Your task to perform on an android device: Search for flights from NYC to Barcelona Image 0: 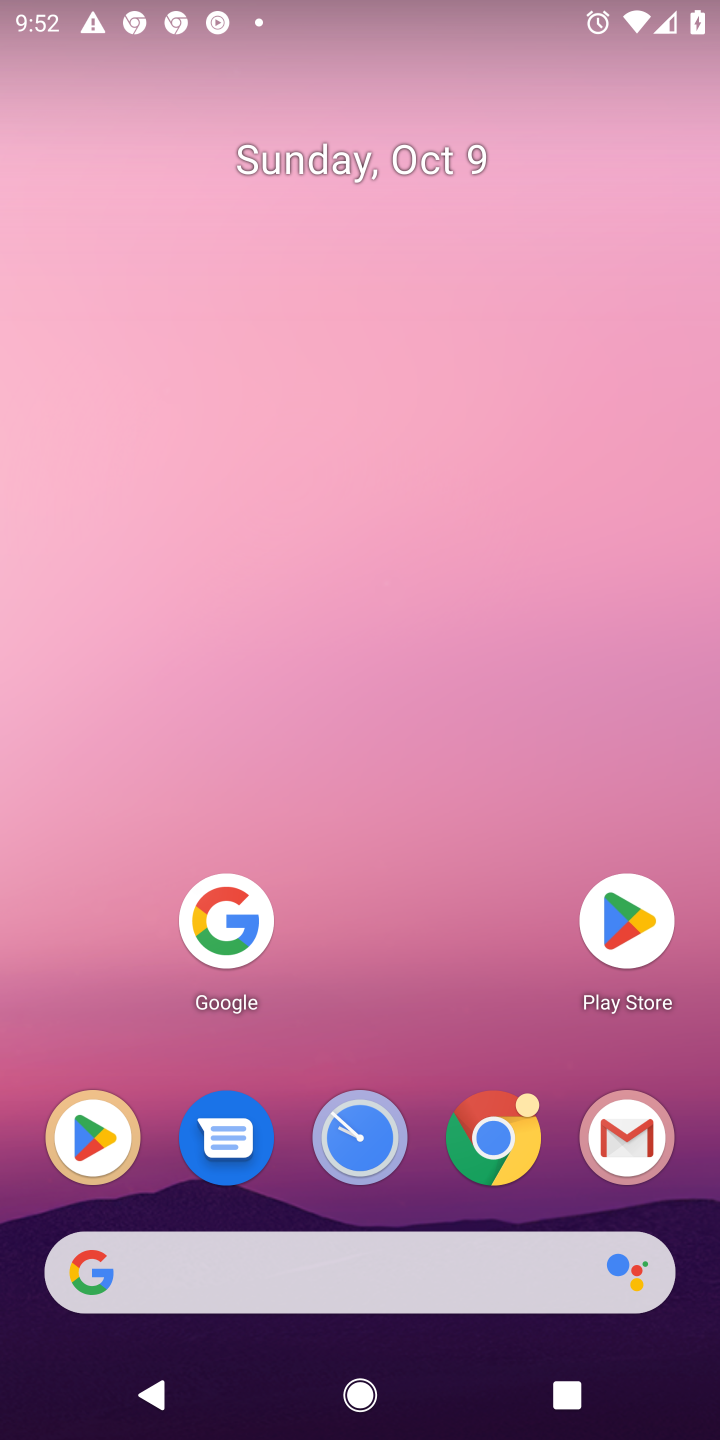
Step 0: click (227, 913)
Your task to perform on an android device: Search for flights from NYC to Barcelona Image 1: 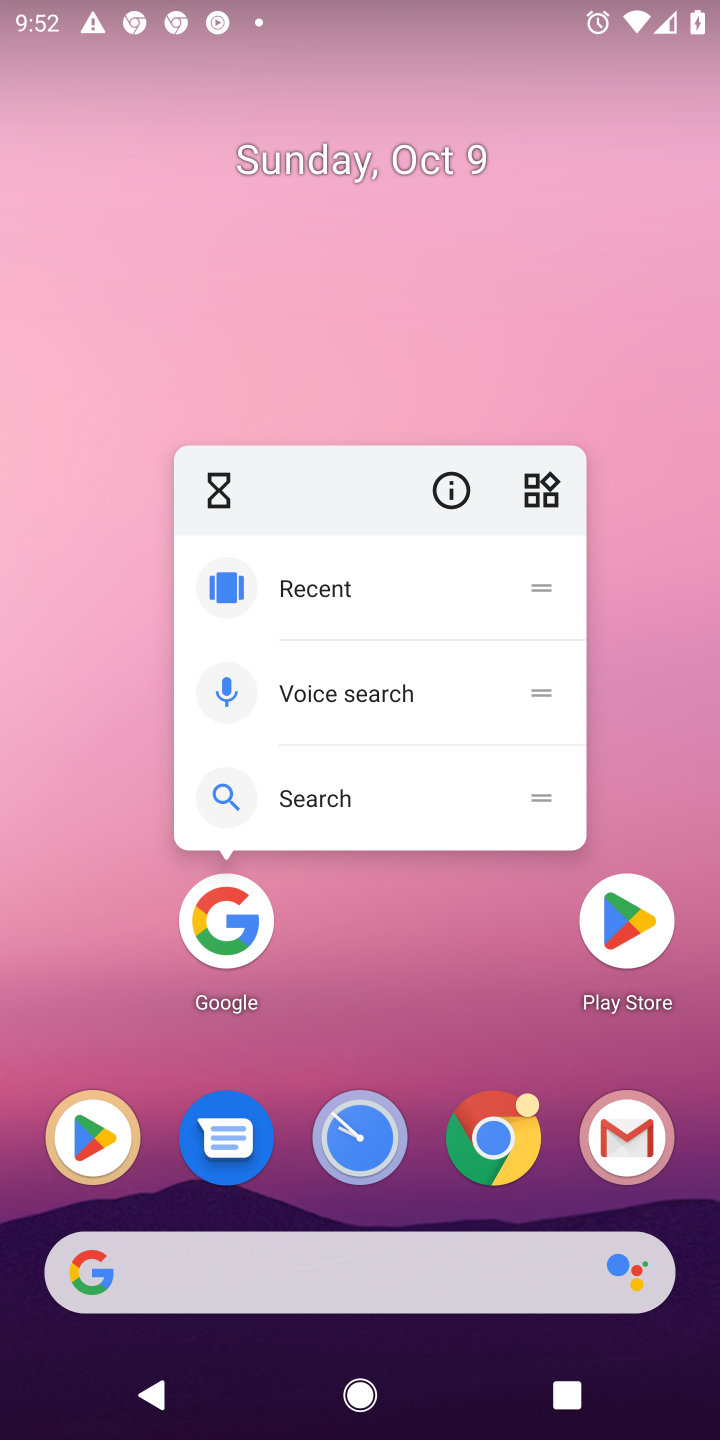
Step 1: click (229, 910)
Your task to perform on an android device: Search for flights from NYC to Barcelona Image 2: 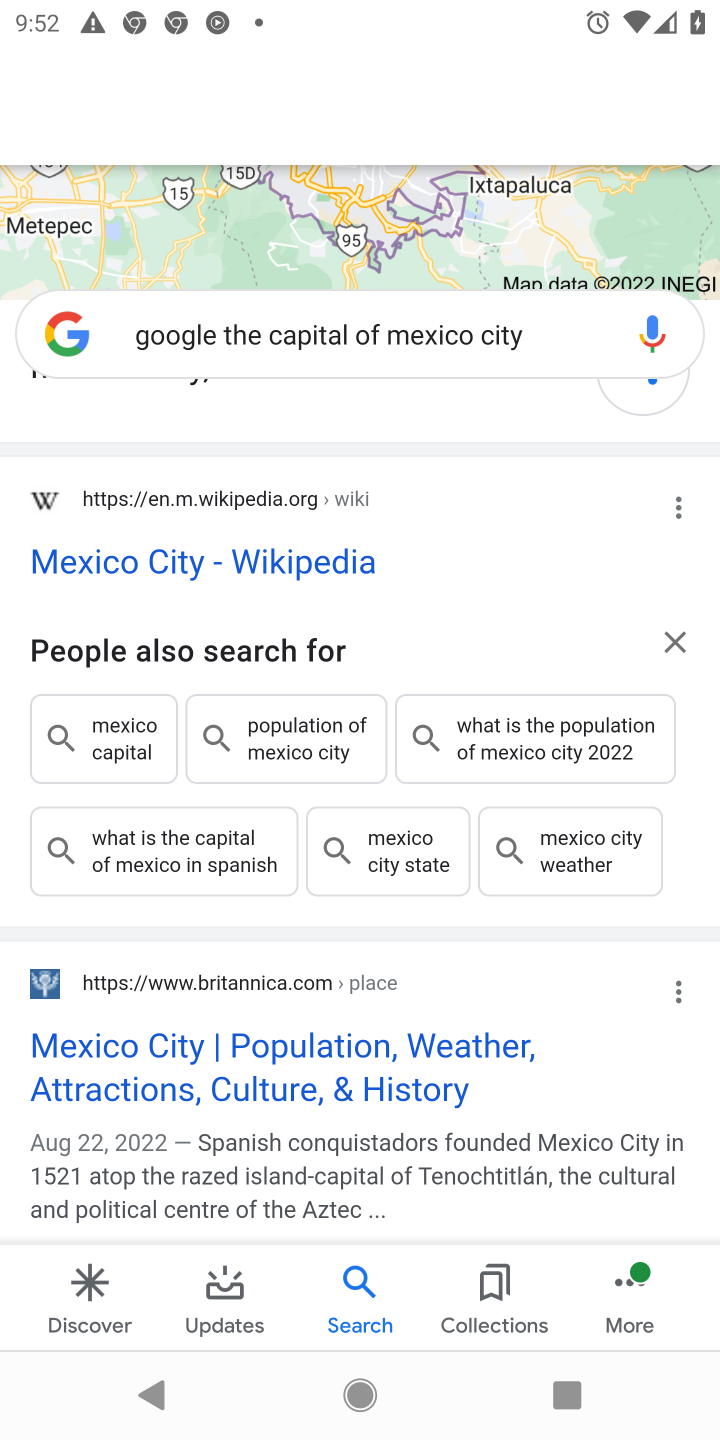
Step 2: click (543, 325)
Your task to perform on an android device: Search for flights from NYC to Barcelona Image 3: 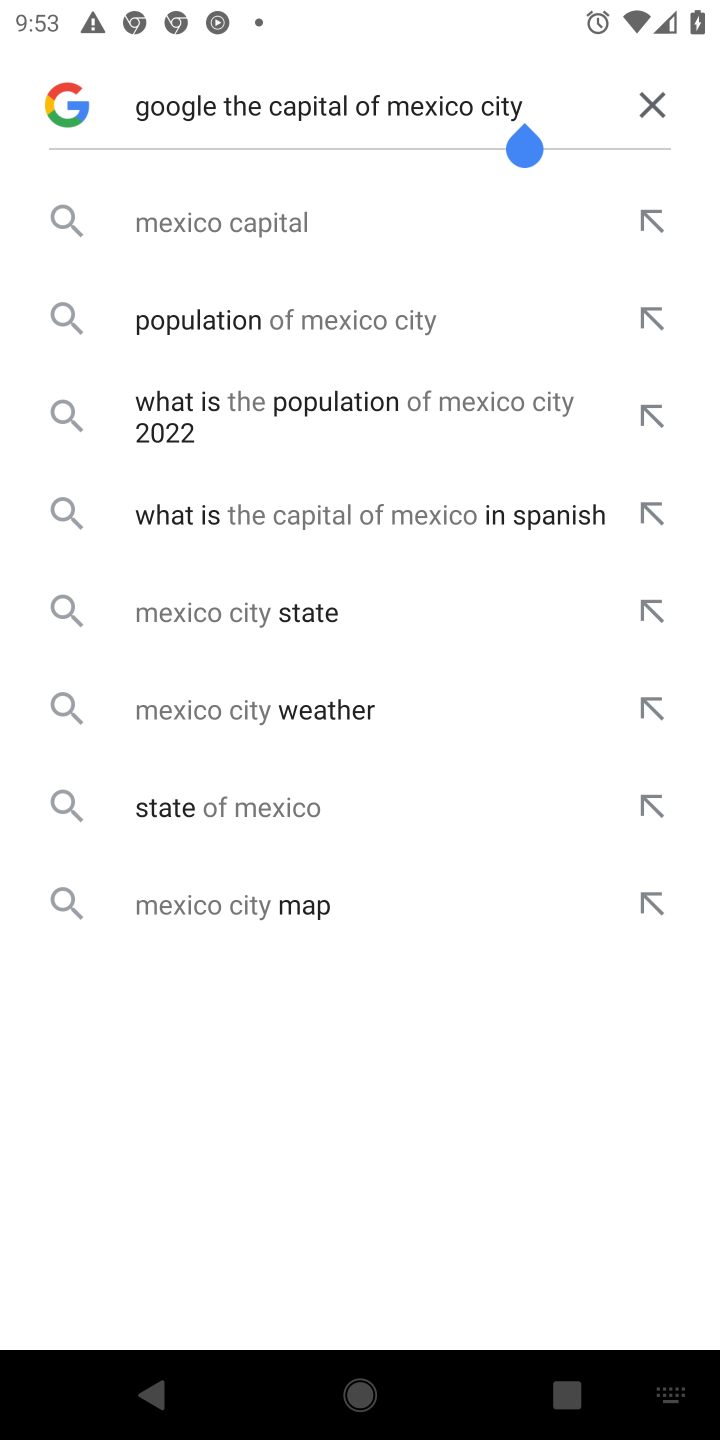
Step 3: click (644, 110)
Your task to perform on an android device: Search for flights from NYC to Barcelona Image 4: 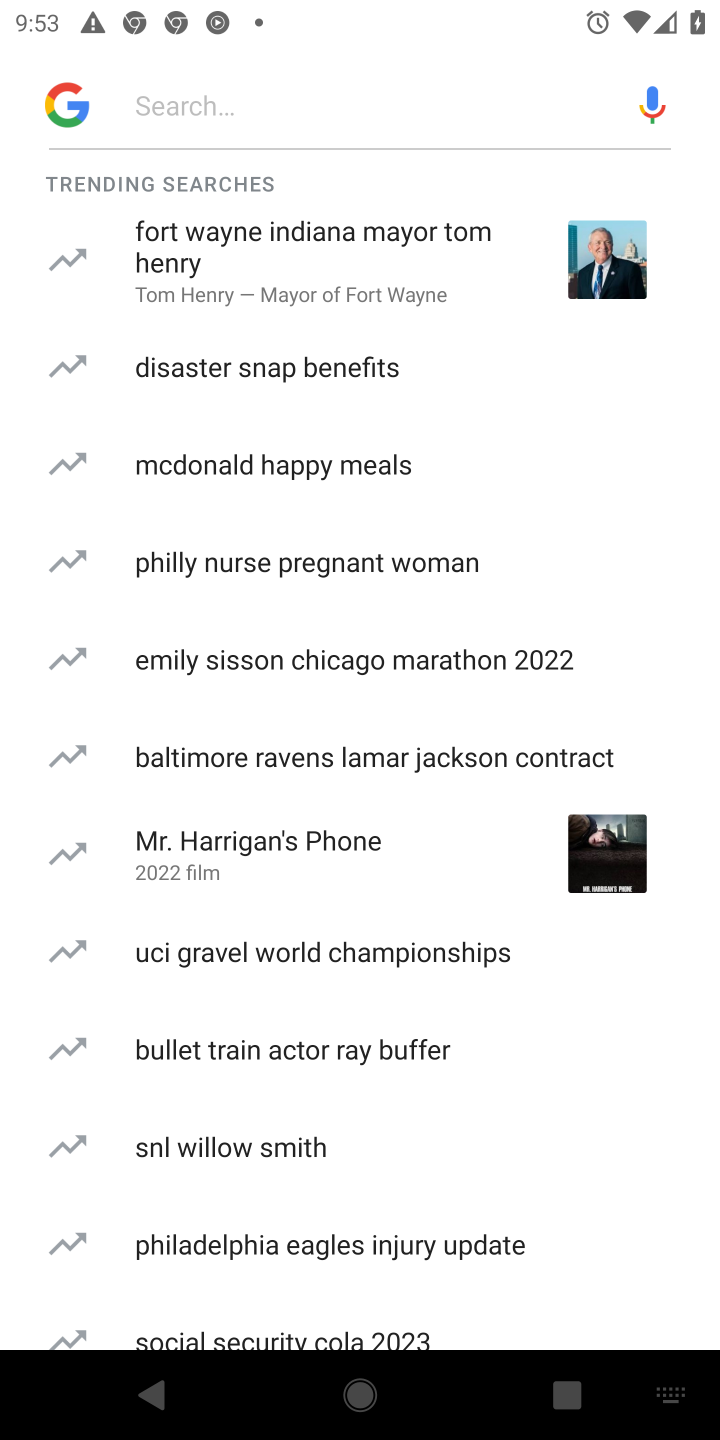
Step 4: click (265, 115)
Your task to perform on an android device: Search for flights from NYC to Barcelona Image 5: 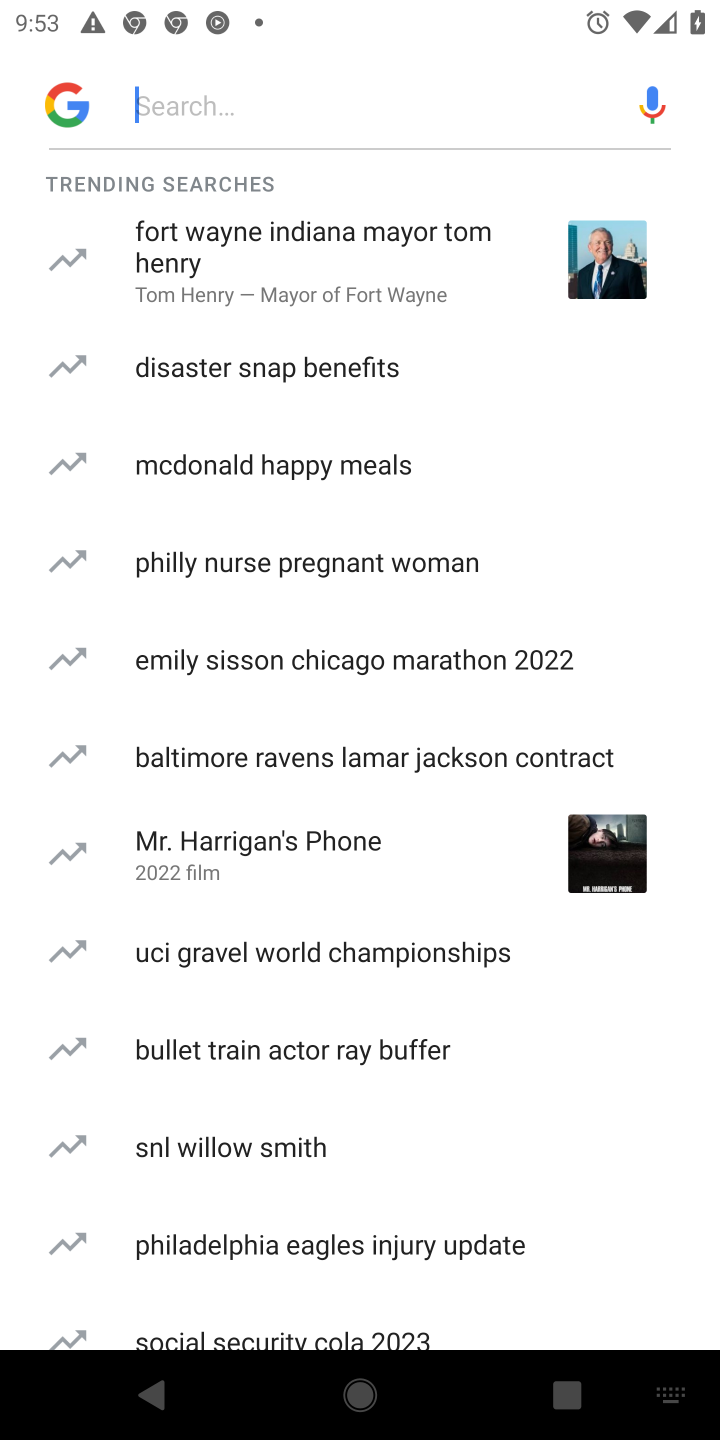
Step 5: type "flights from NYC to Barcelona "
Your task to perform on an android device: Search for flights from NYC to Barcelona Image 6: 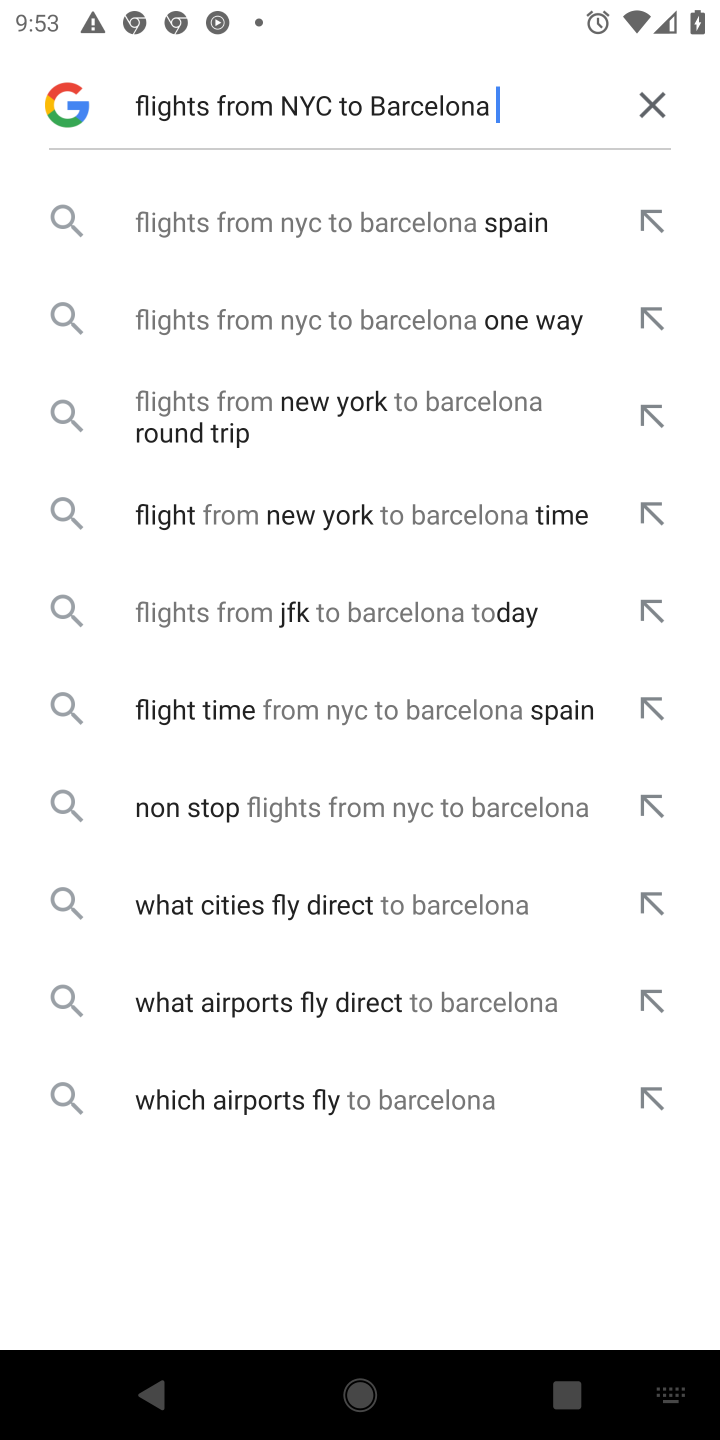
Step 6: click (266, 243)
Your task to perform on an android device: Search for flights from NYC to Barcelona Image 7: 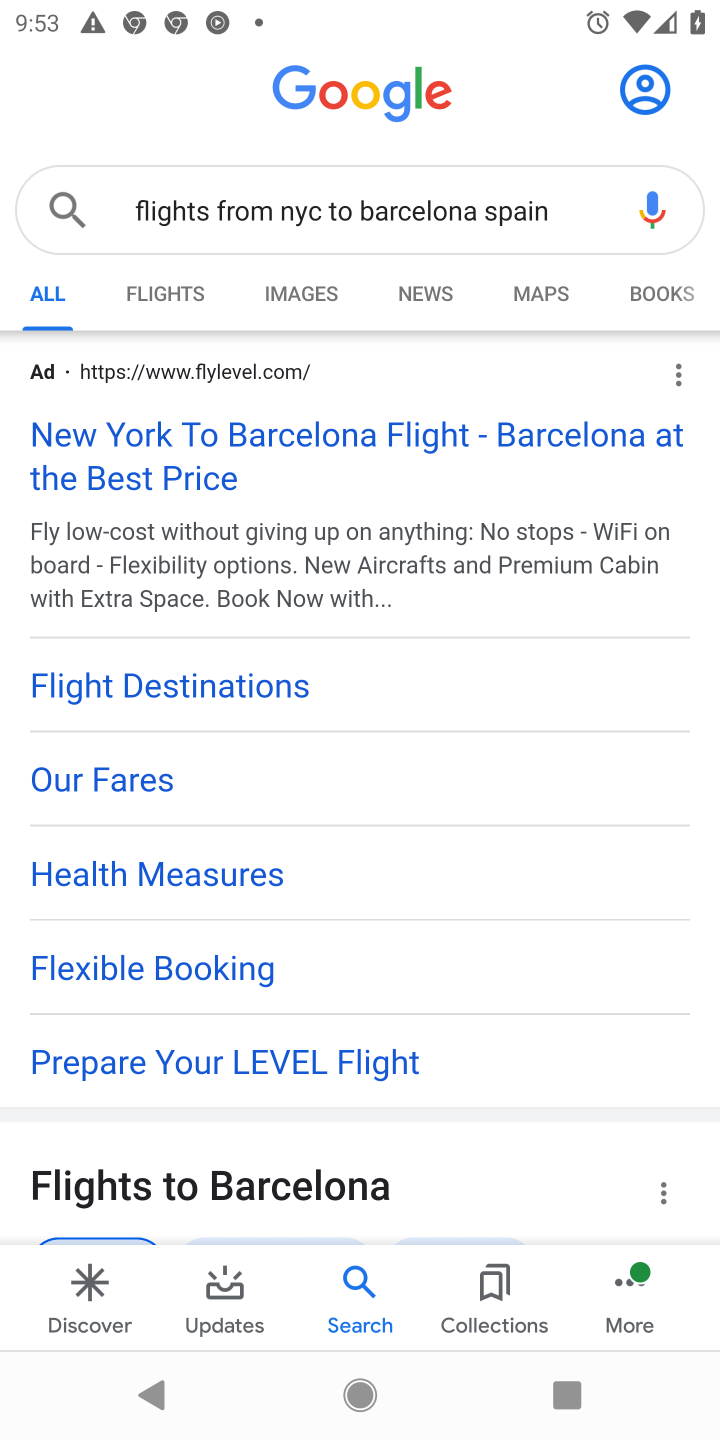
Step 7: click (386, 441)
Your task to perform on an android device: Search for flights from NYC to Barcelona Image 8: 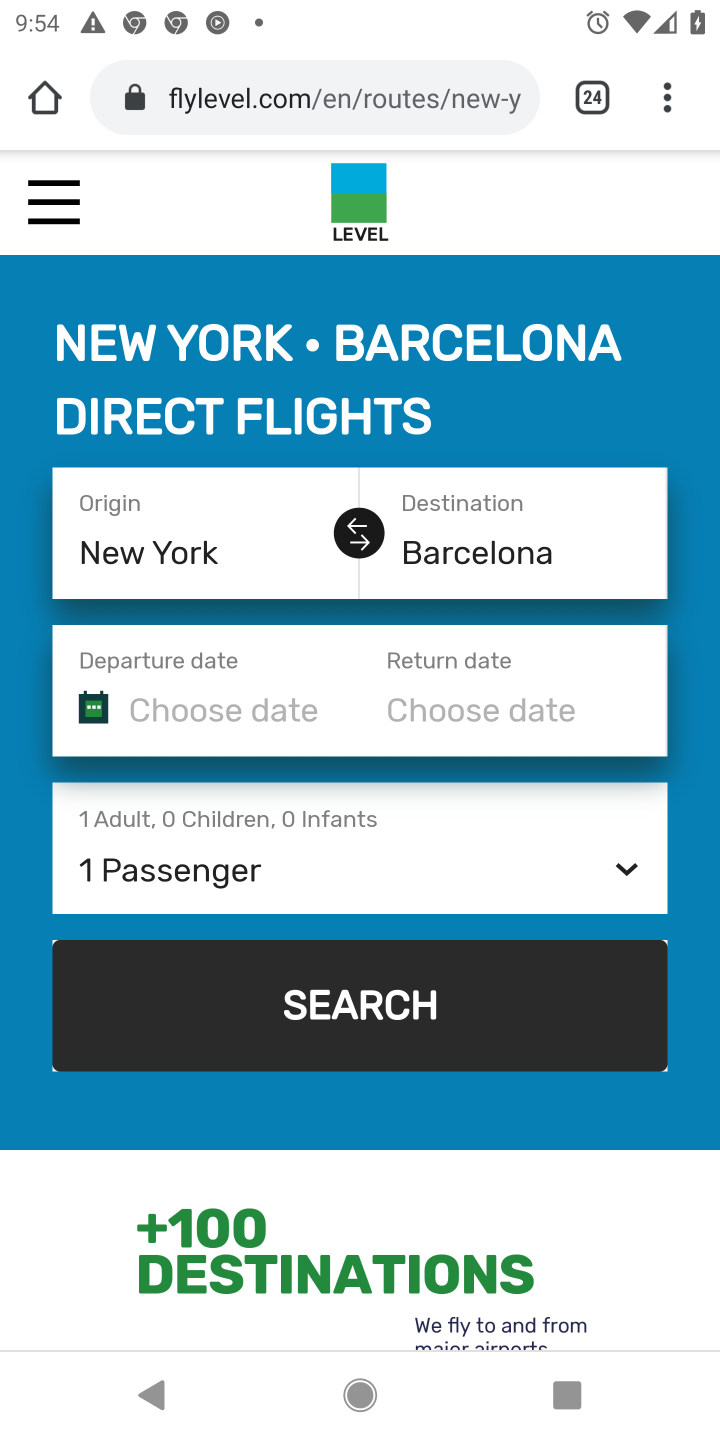
Step 8: task complete